Your task to perform on an android device: empty trash in the gmail app Image 0: 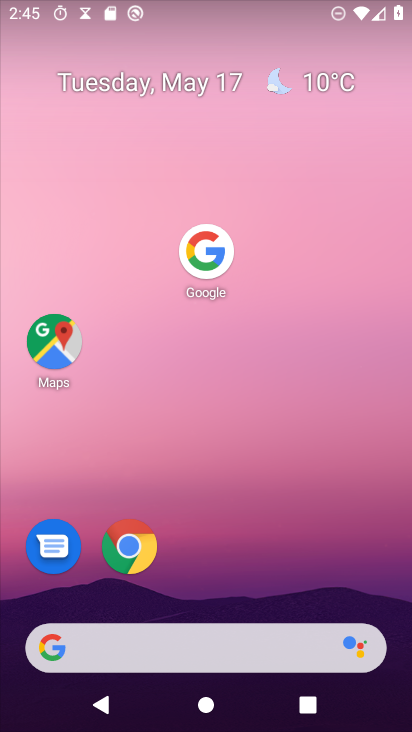
Step 0: press home button
Your task to perform on an android device: empty trash in the gmail app Image 1: 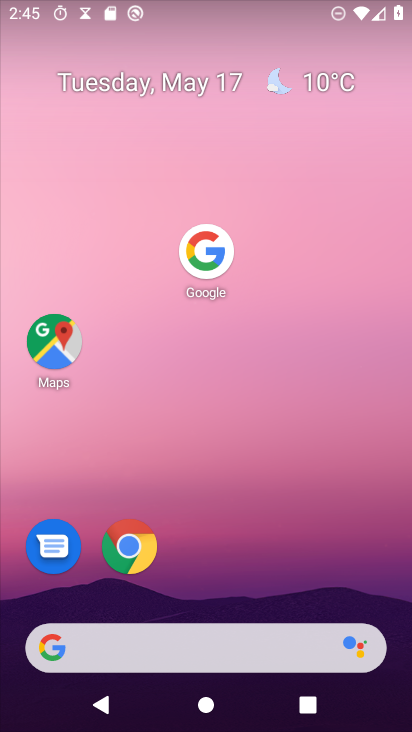
Step 1: drag from (160, 652) to (325, 95)
Your task to perform on an android device: empty trash in the gmail app Image 2: 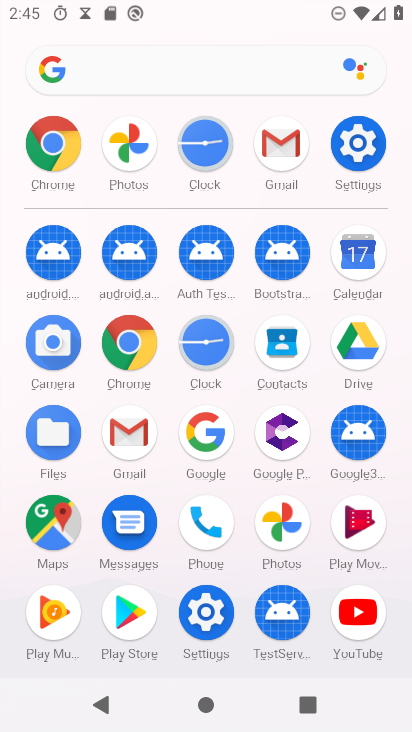
Step 2: click (123, 439)
Your task to perform on an android device: empty trash in the gmail app Image 3: 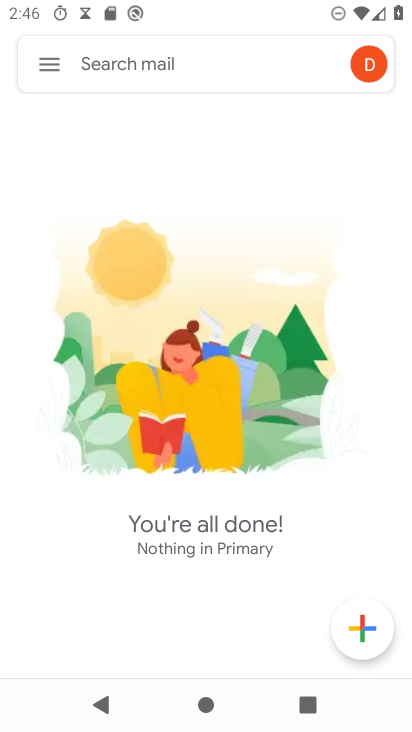
Step 3: click (52, 64)
Your task to perform on an android device: empty trash in the gmail app Image 4: 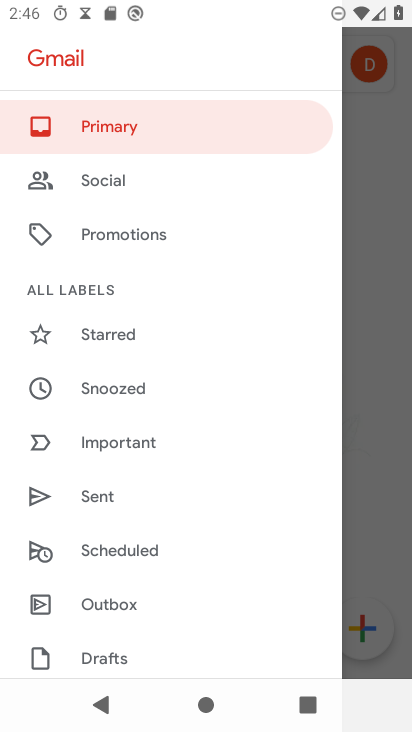
Step 4: drag from (180, 611) to (274, 186)
Your task to perform on an android device: empty trash in the gmail app Image 5: 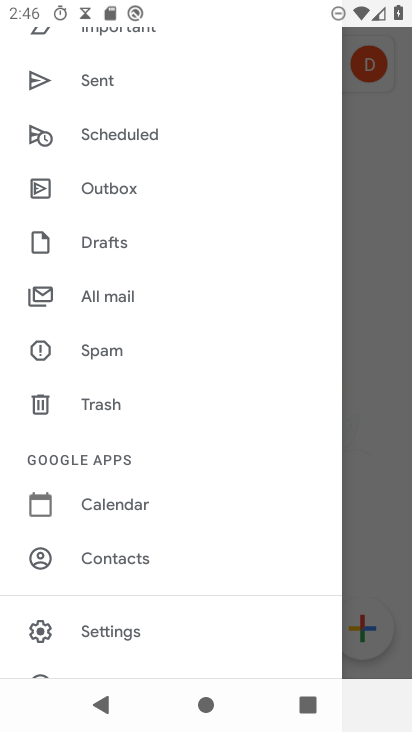
Step 5: click (94, 407)
Your task to perform on an android device: empty trash in the gmail app Image 6: 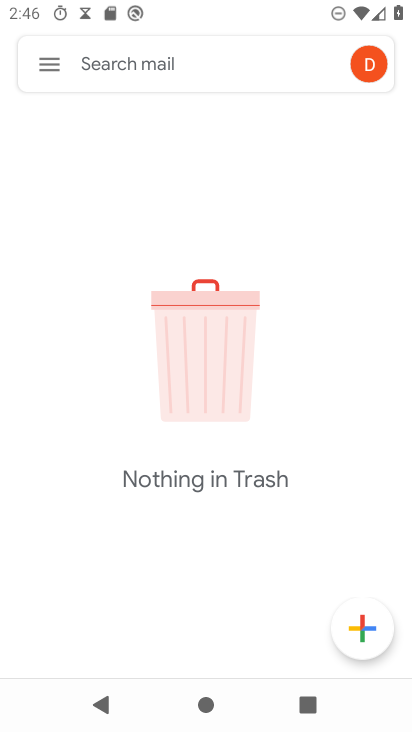
Step 6: task complete